Your task to perform on an android device: Open internet settings Image 0: 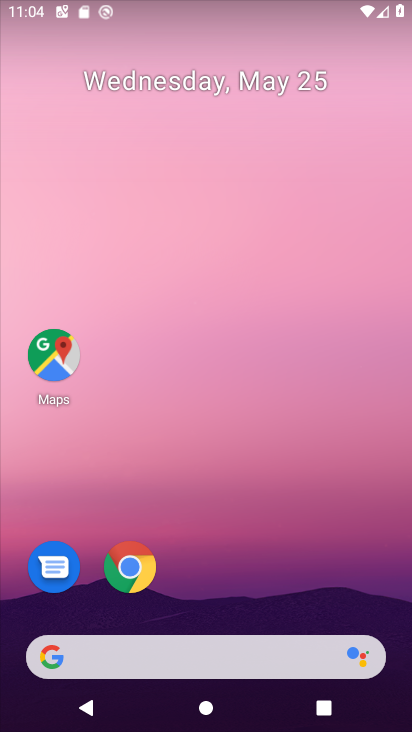
Step 0: drag from (256, 585) to (225, 56)
Your task to perform on an android device: Open internet settings Image 1: 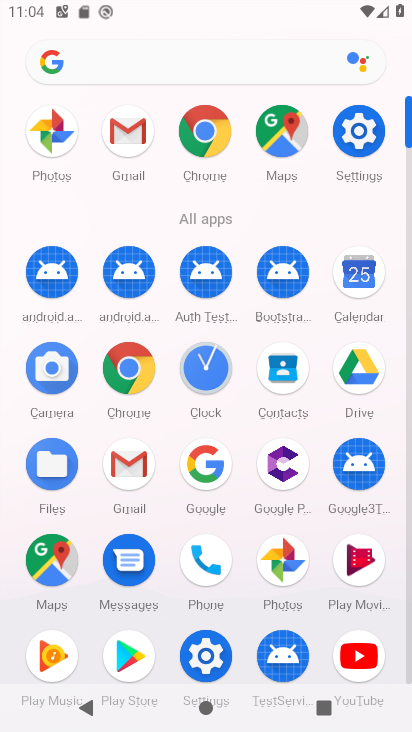
Step 1: click (363, 136)
Your task to perform on an android device: Open internet settings Image 2: 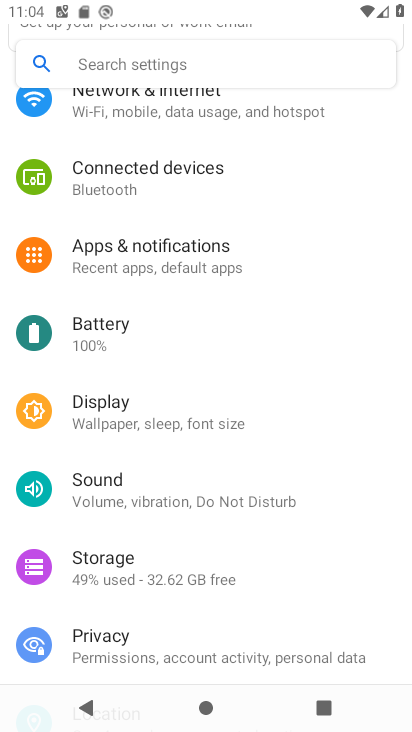
Step 2: click (233, 110)
Your task to perform on an android device: Open internet settings Image 3: 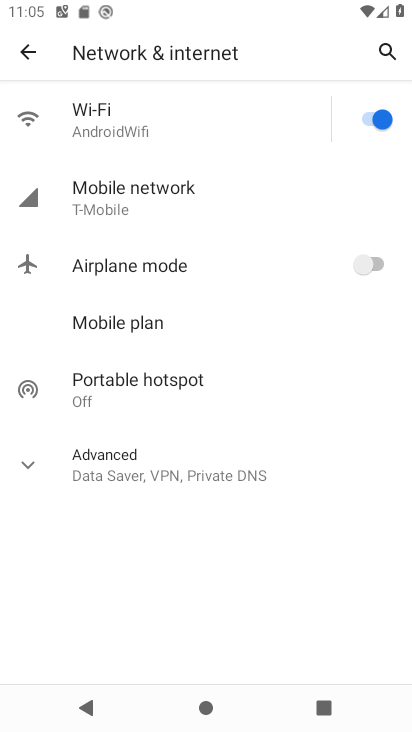
Step 3: task complete